Your task to perform on an android device: toggle priority inbox in the gmail app Image 0: 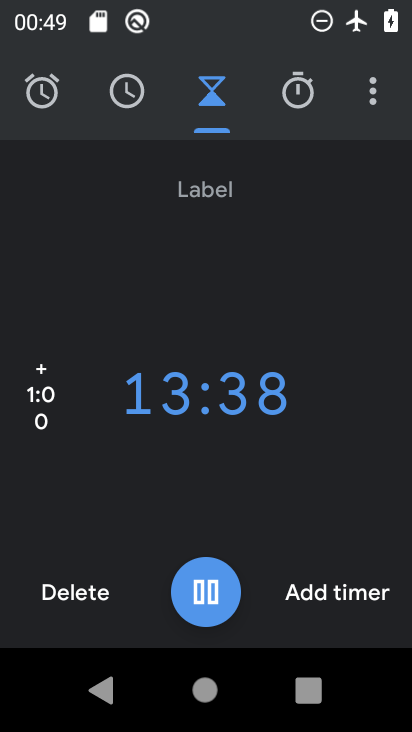
Step 0: click (368, 110)
Your task to perform on an android device: toggle priority inbox in the gmail app Image 1: 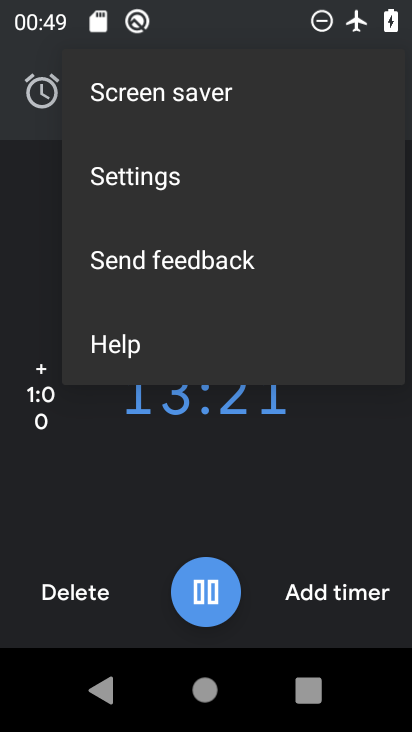
Step 1: click (314, 474)
Your task to perform on an android device: toggle priority inbox in the gmail app Image 2: 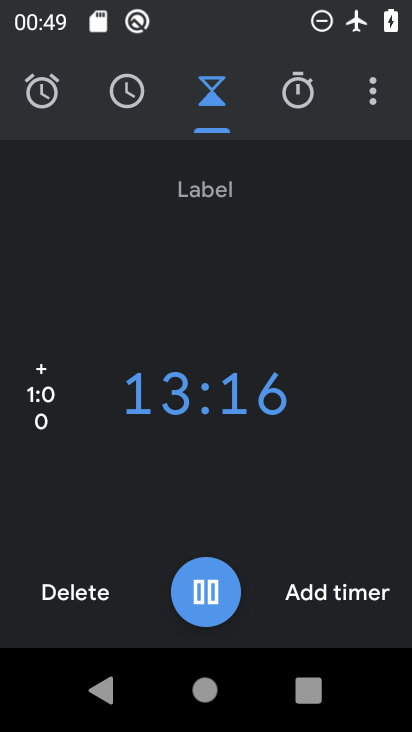
Step 2: click (189, 412)
Your task to perform on an android device: toggle priority inbox in the gmail app Image 3: 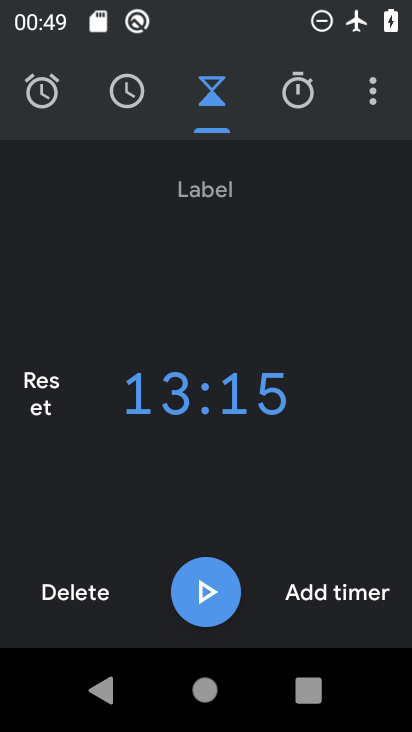
Step 3: drag from (264, 519) to (292, 288)
Your task to perform on an android device: toggle priority inbox in the gmail app Image 4: 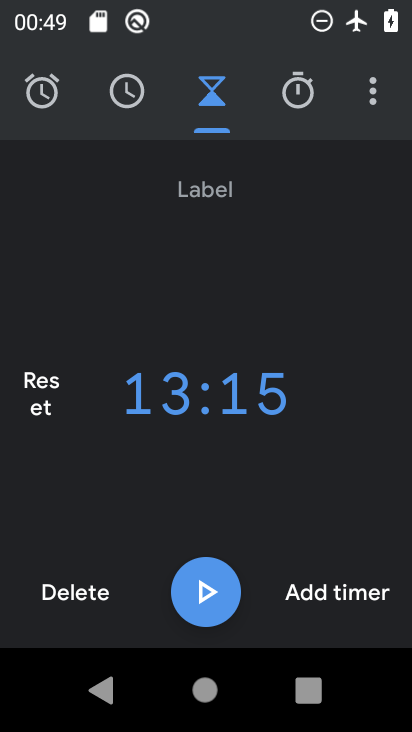
Step 4: press home button
Your task to perform on an android device: toggle priority inbox in the gmail app Image 5: 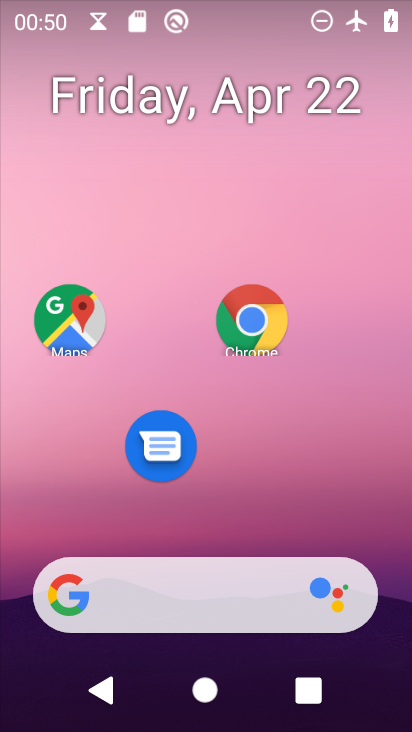
Step 5: drag from (220, 479) to (193, 95)
Your task to perform on an android device: toggle priority inbox in the gmail app Image 6: 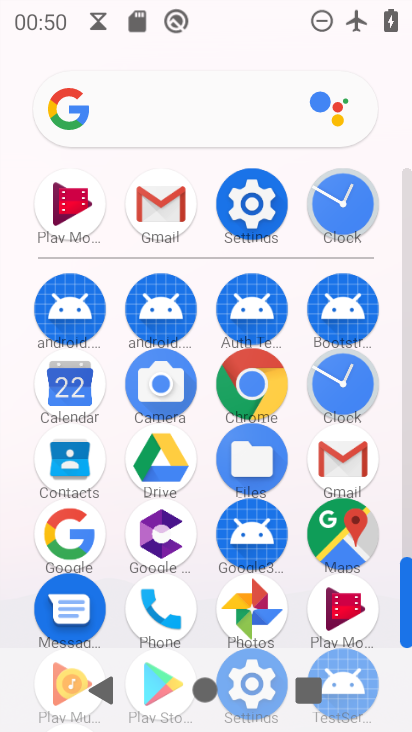
Step 6: click (333, 453)
Your task to perform on an android device: toggle priority inbox in the gmail app Image 7: 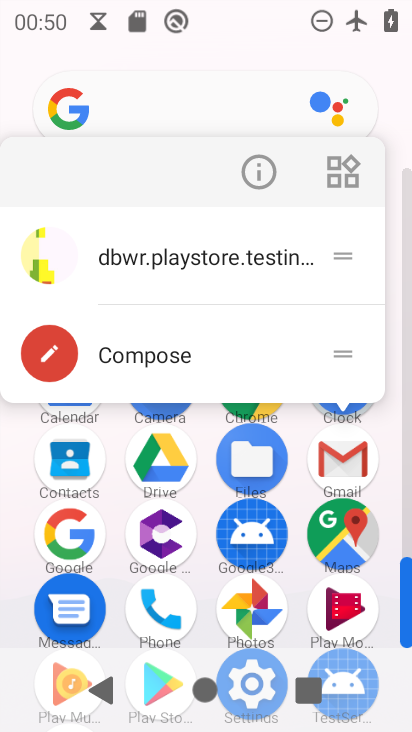
Step 7: click (264, 181)
Your task to perform on an android device: toggle priority inbox in the gmail app Image 8: 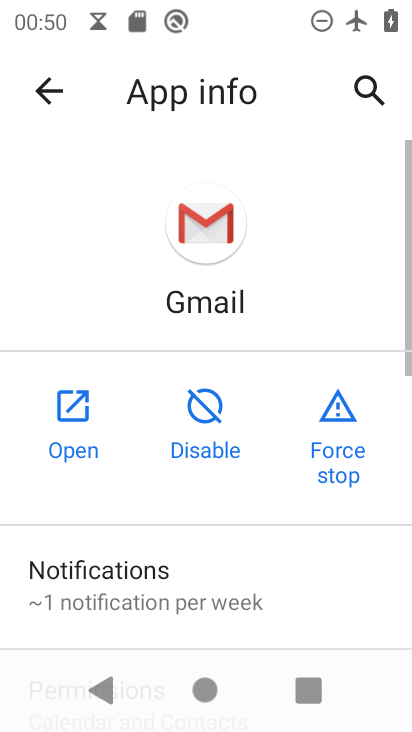
Step 8: click (93, 443)
Your task to perform on an android device: toggle priority inbox in the gmail app Image 9: 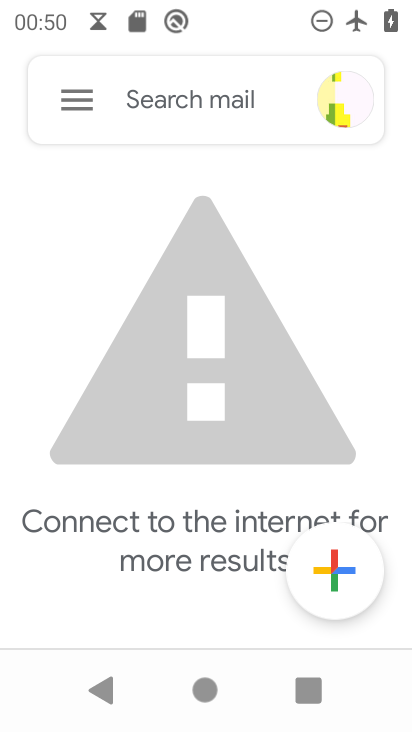
Step 9: drag from (223, 378) to (223, 273)
Your task to perform on an android device: toggle priority inbox in the gmail app Image 10: 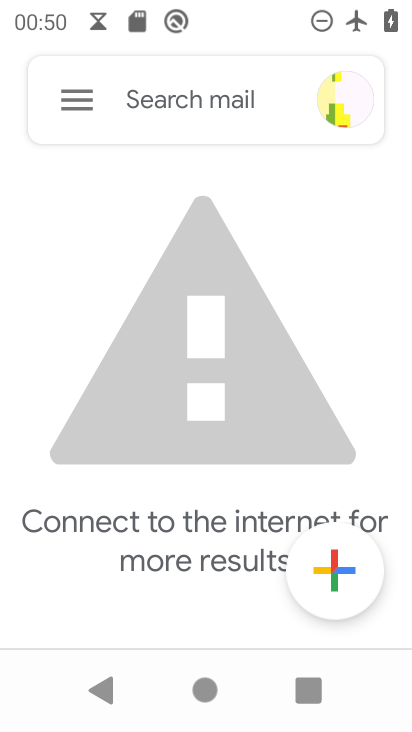
Step 10: click (78, 97)
Your task to perform on an android device: toggle priority inbox in the gmail app Image 11: 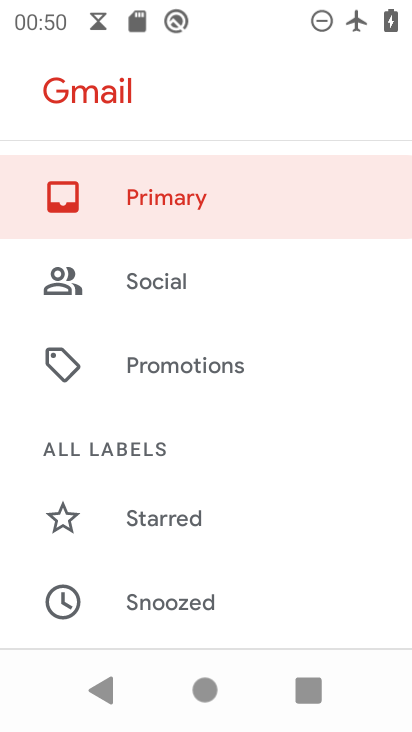
Step 11: drag from (236, 399) to (236, 270)
Your task to perform on an android device: toggle priority inbox in the gmail app Image 12: 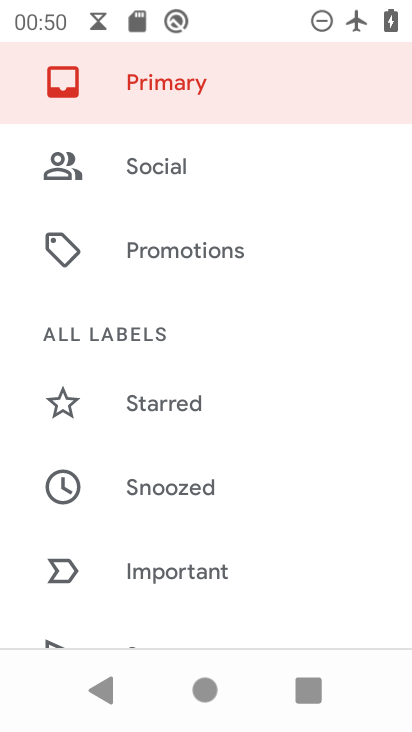
Step 12: drag from (233, 468) to (249, 105)
Your task to perform on an android device: toggle priority inbox in the gmail app Image 13: 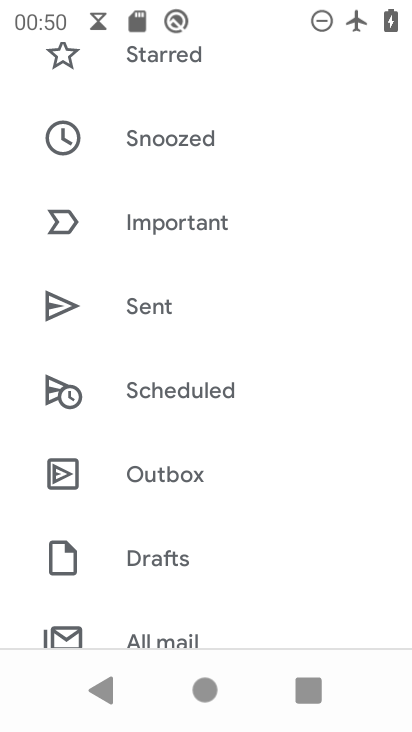
Step 13: drag from (229, 170) to (273, 664)
Your task to perform on an android device: toggle priority inbox in the gmail app Image 14: 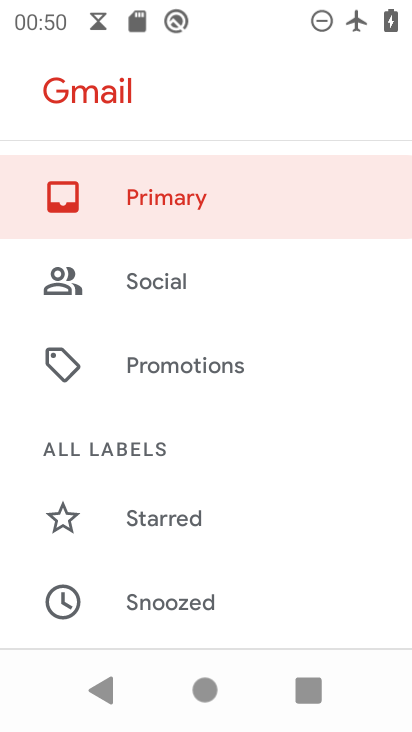
Step 14: drag from (232, 577) to (280, 182)
Your task to perform on an android device: toggle priority inbox in the gmail app Image 15: 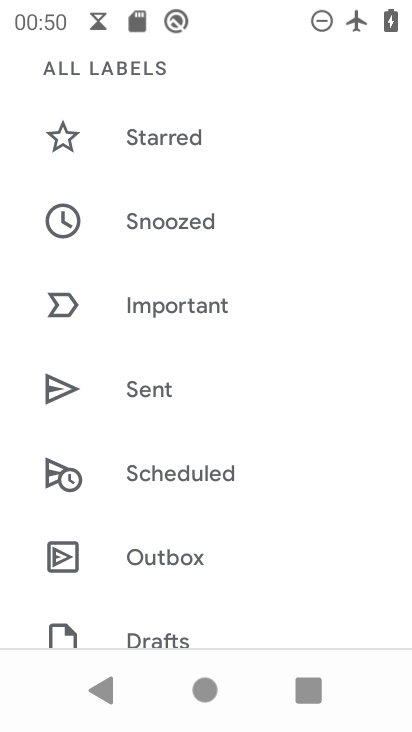
Step 15: drag from (252, 579) to (256, 130)
Your task to perform on an android device: toggle priority inbox in the gmail app Image 16: 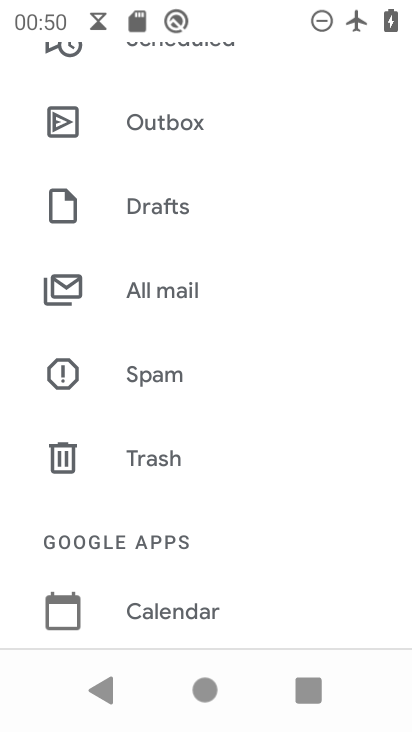
Step 16: drag from (215, 611) to (236, 218)
Your task to perform on an android device: toggle priority inbox in the gmail app Image 17: 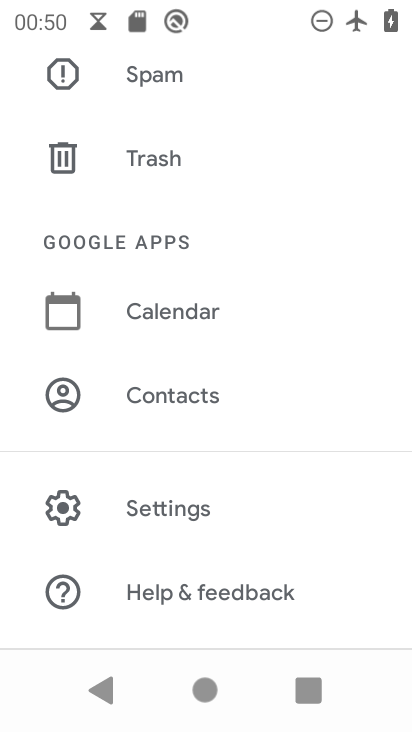
Step 17: click (217, 508)
Your task to perform on an android device: toggle priority inbox in the gmail app Image 18: 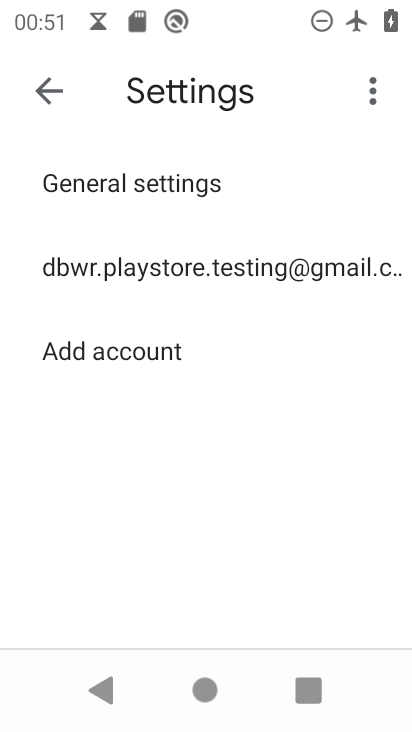
Step 18: drag from (232, 443) to (239, 280)
Your task to perform on an android device: toggle priority inbox in the gmail app Image 19: 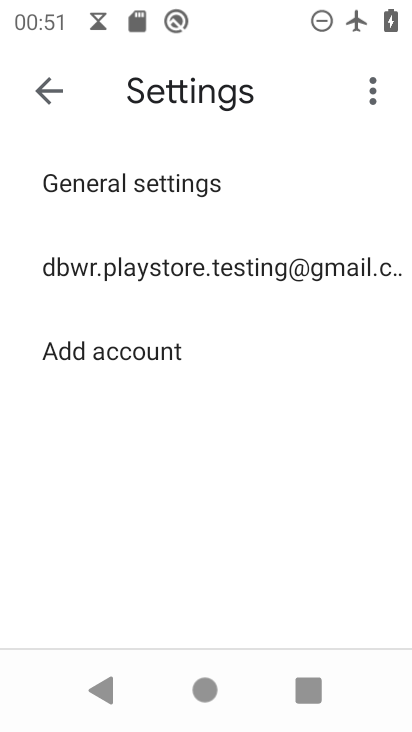
Step 19: click (229, 278)
Your task to perform on an android device: toggle priority inbox in the gmail app Image 20: 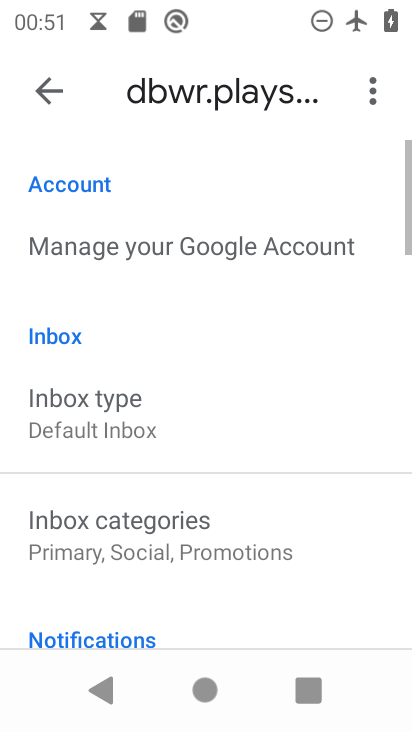
Step 20: click (139, 426)
Your task to perform on an android device: toggle priority inbox in the gmail app Image 21: 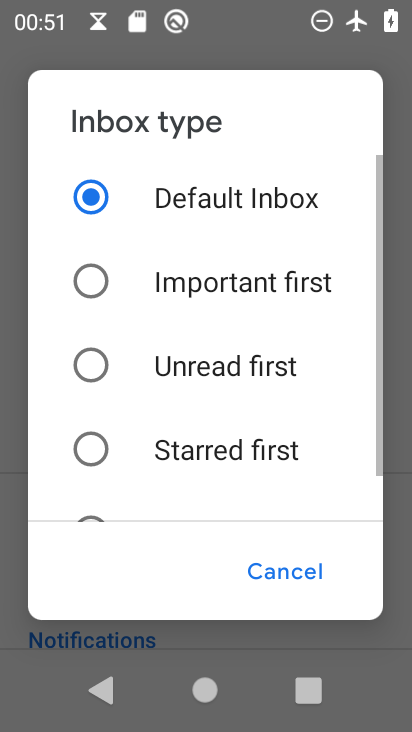
Step 21: drag from (205, 443) to (256, 92)
Your task to perform on an android device: toggle priority inbox in the gmail app Image 22: 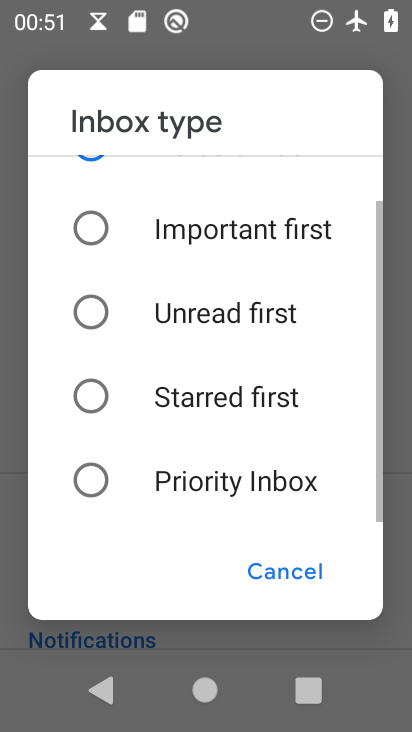
Step 22: click (194, 484)
Your task to perform on an android device: toggle priority inbox in the gmail app Image 23: 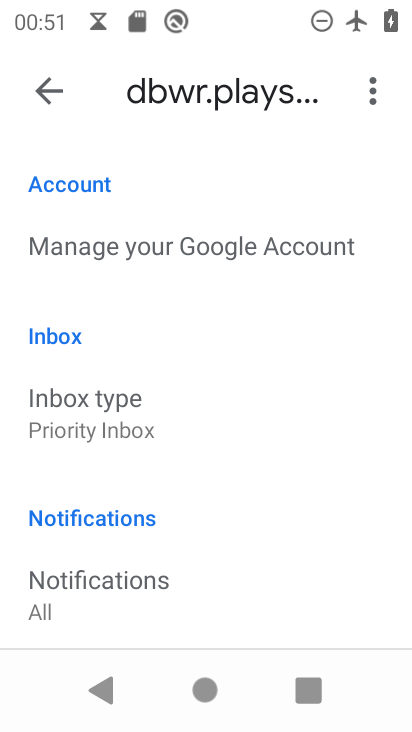
Step 23: drag from (193, 572) to (208, 295)
Your task to perform on an android device: toggle priority inbox in the gmail app Image 24: 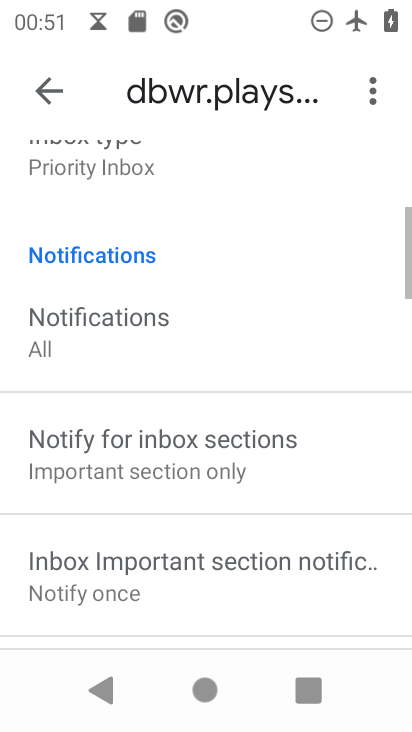
Step 24: drag from (211, 586) to (231, 253)
Your task to perform on an android device: toggle priority inbox in the gmail app Image 25: 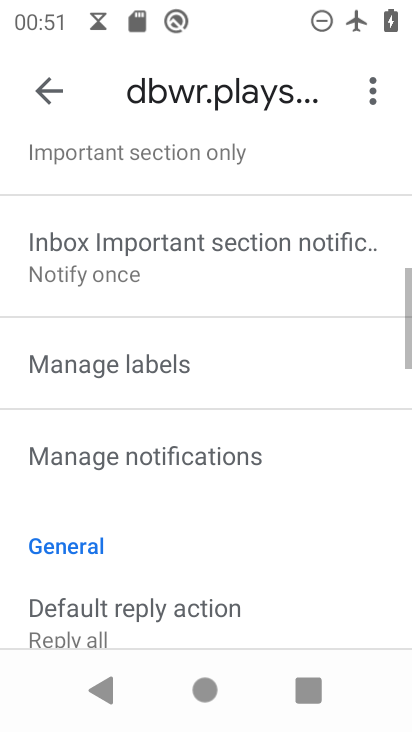
Step 25: drag from (218, 498) to (256, 351)
Your task to perform on an android device: toggle priority inbox in the gmail app Image 26: 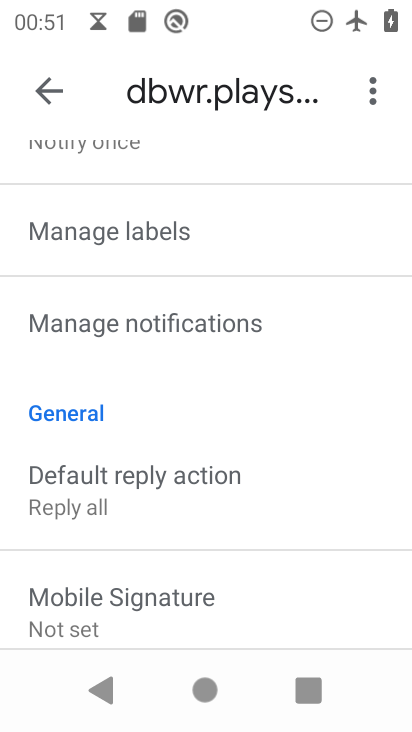
Step 26: drag from (232, 233) to (259, 726)
Your task to perform on an android device: toggle priority inbox in the gmail app Image 27: 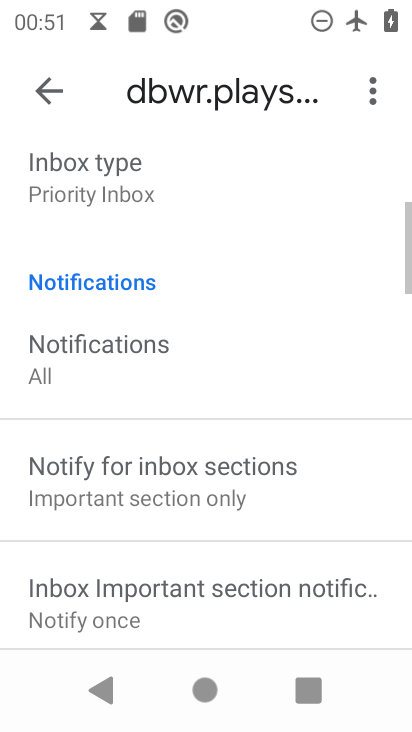
Step 27: drag from (204, 279) to (279, 701)
Your task to perform on an android device: toggle priority inbox in the gmail app Image 28: 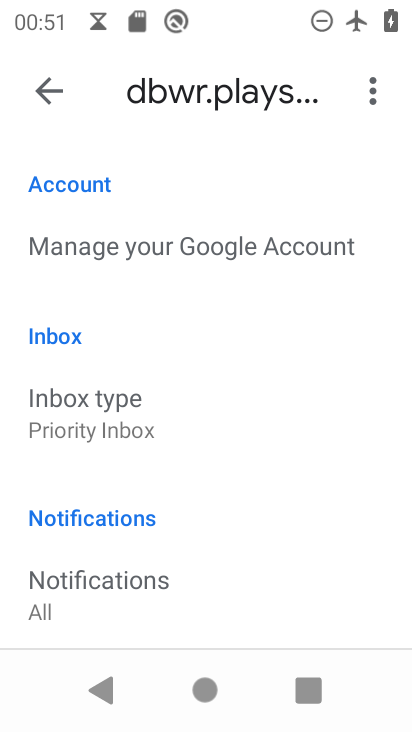
Step 28: click (154, 405)
Your task to perform on an android device: toggle priority inbox in the gmail app Image 29: 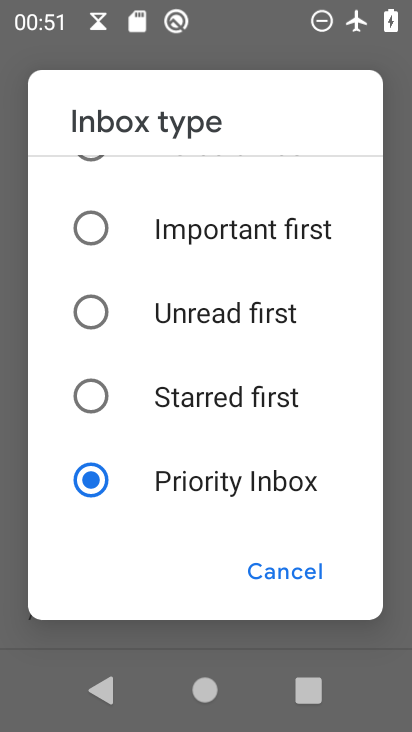
Step 29: click (89, 314)
Your task to perform on an android device: toggle priority inbox in the gmail app Image 30: 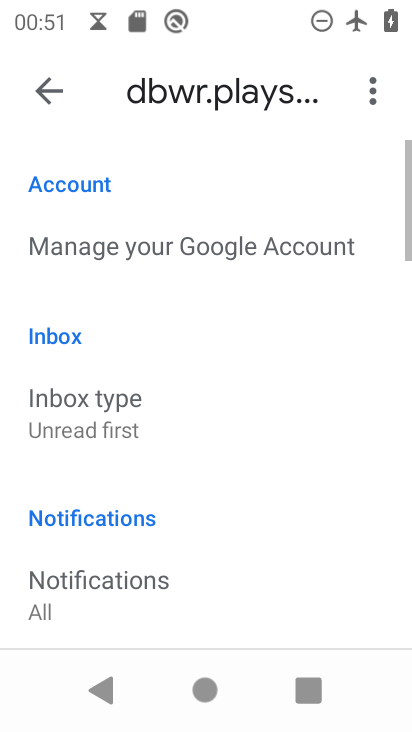
Step 30: task complete